Your task to perform on an android device: Open the web browser Image 0: 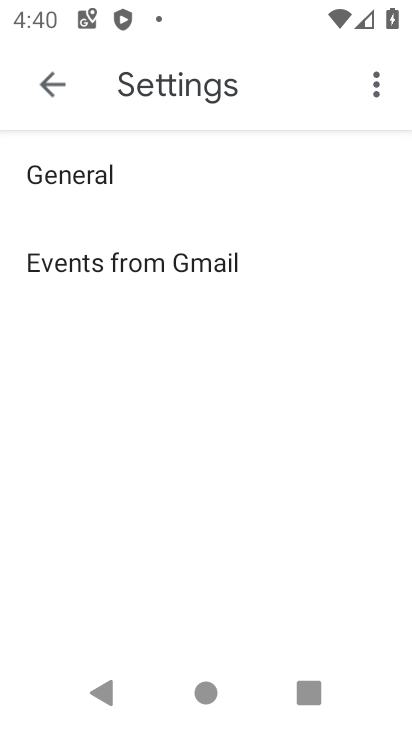
Step 0: press home button
Your task to perform on an android device: Open the web browser Image 1: 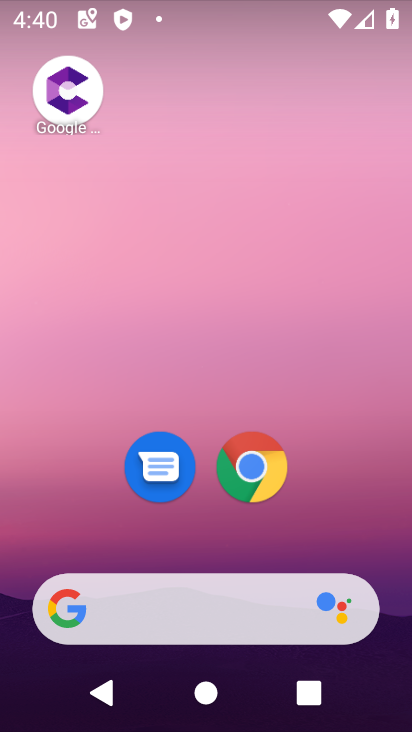
Step 1: click (126, 65)
Your task to perform on an android device: Open the web browser Image 2: 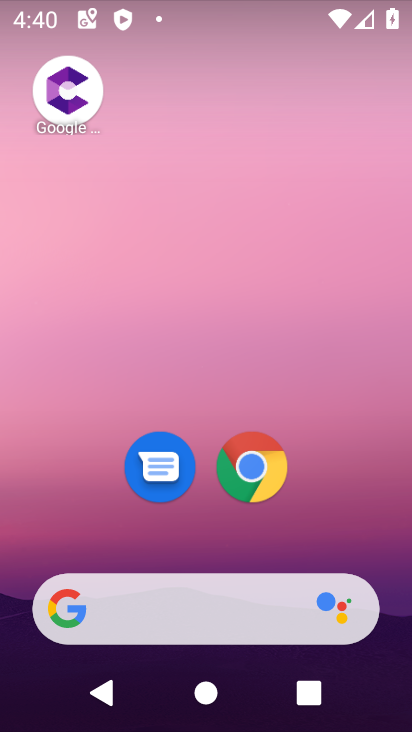
Step 2: drag from (82, 516) to (145, 82)
Your task to perform on an android device: Open the web browser Image 3: 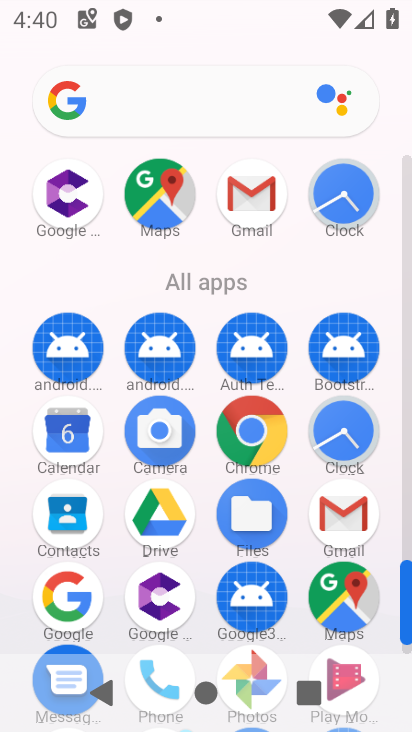
Step 3: click (43, 592)
Your task to perform on an android device: Open the web browser Image 4: 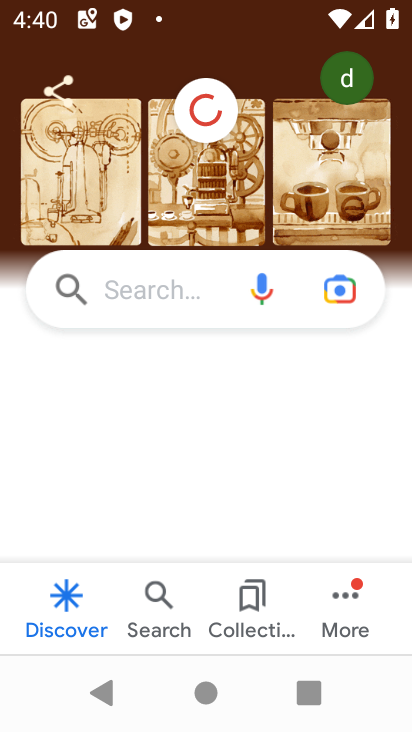
Step 4: task complete